Your task to perform on an android device: Find coffee shops on Maps Image 0: 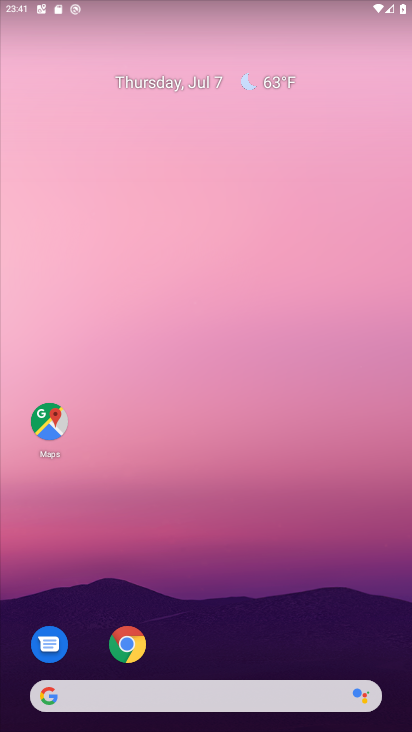
Step 0: drag from (223, 728) to (226, 105)
Your task to perform on an android device: Find coffee shops on Maps Image 1: 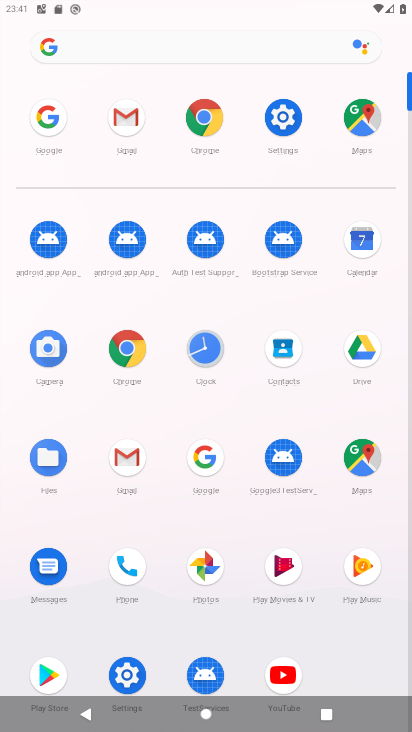
Step 1: click (359, 113)
Your task to perform on an android device: Find coffee shops on Maps Image 2: 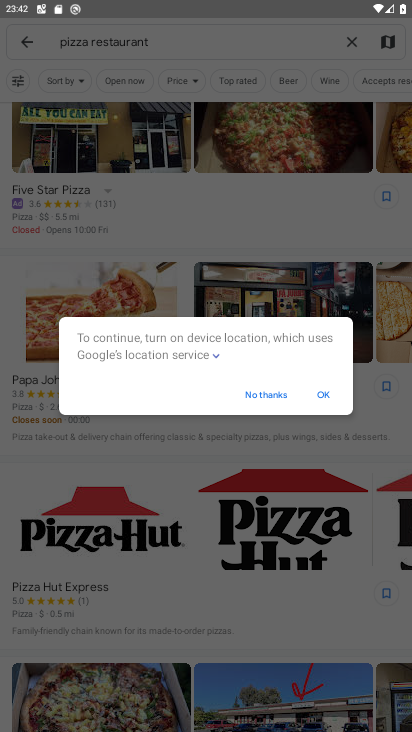
Step 2: click (323, 391)
Your task to perform on an android device: Find coffee shops on Maps Image 3: 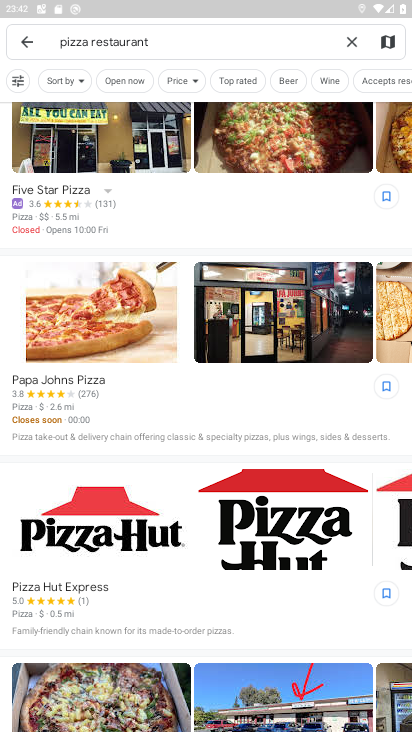
Step 3: click (350, 39)
Your task to perform on an android device: Find coffee shops on Maps Image 4: 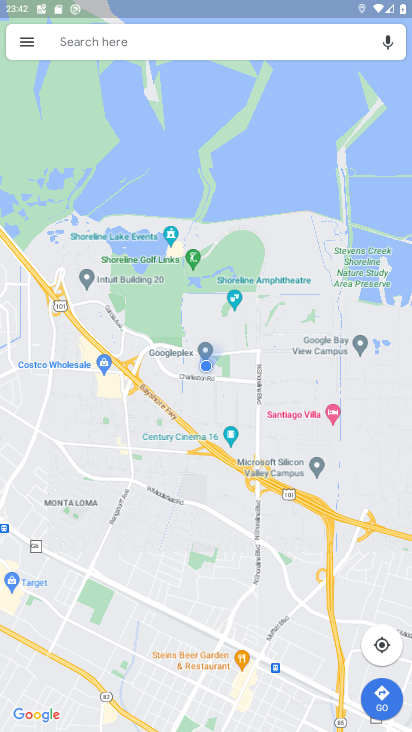
Step 4: click (191, 45)
Your task to perform on an android device: Find coffee shops on Maps Image 5: 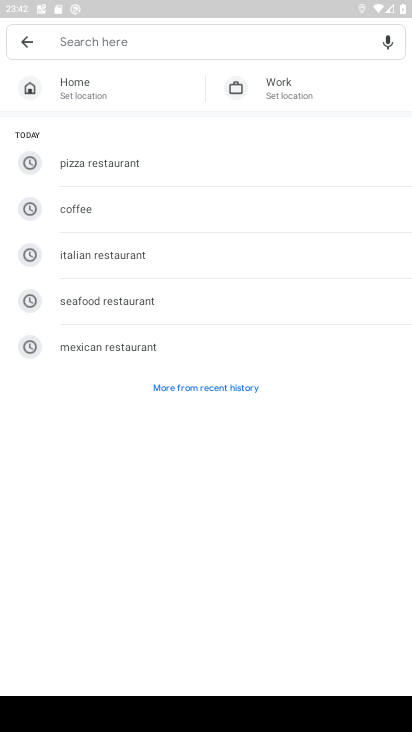
Step 5: type "coffee shops"
Your task to perform on an android device: Find coffee shops on Maps Image 6: 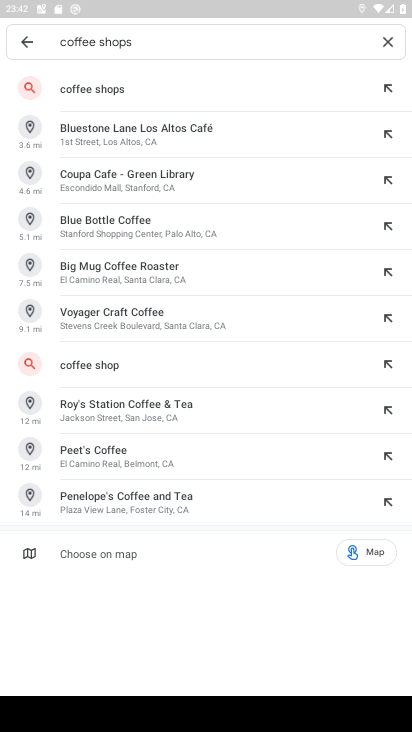
Step 6: click (103, 87)
Your task to perform on an android device: Find coffee shops on Maps Image 7: 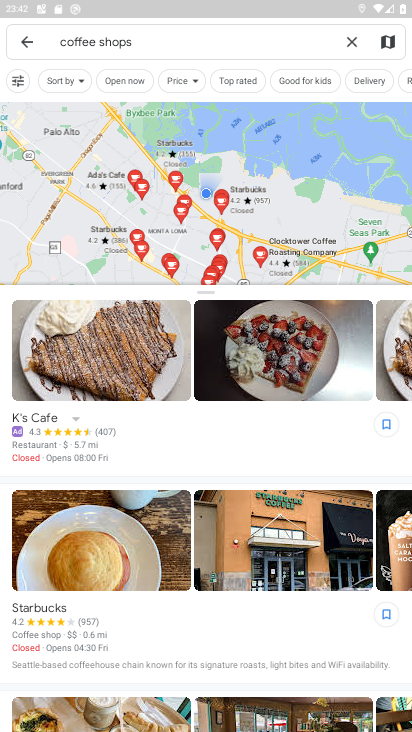
Step 7: task complete